Your task to perform on an android device: open app "DuckDuckGo Privacy Browser" Image 0: 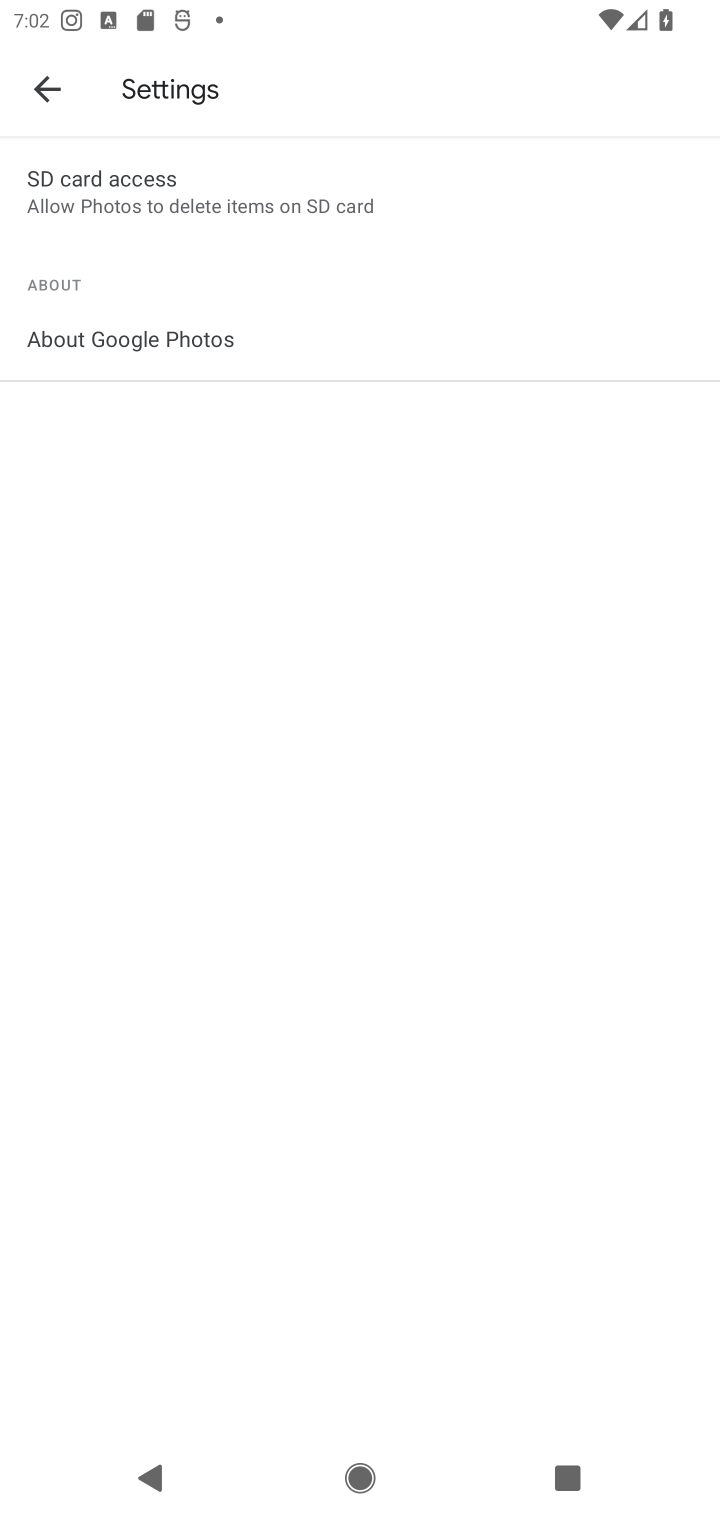
Step 0: press home button
Your task to perform on an android device: open app "DuckDuckGo Privacy Browser" Image 1: 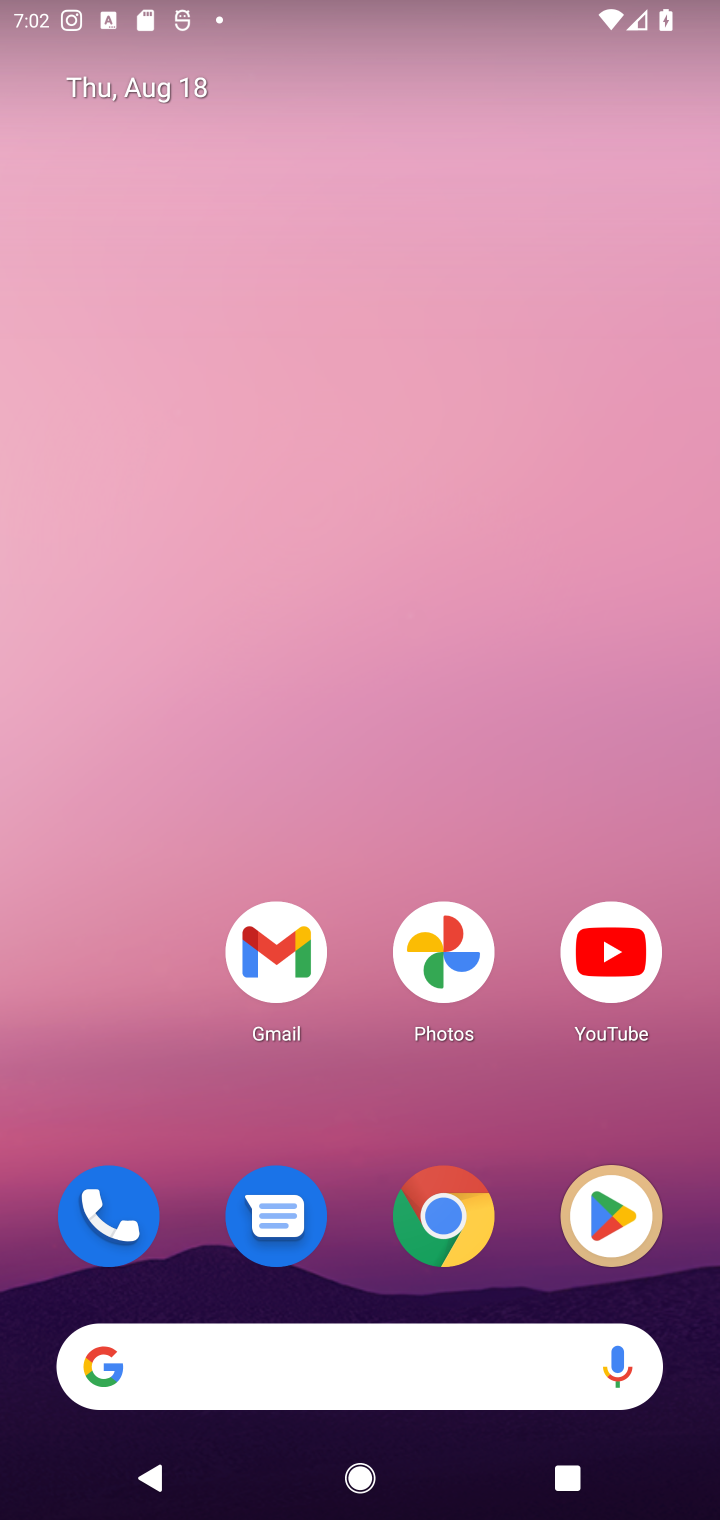
Step 1: click (593, 1206)
Your task to perform on an android device: open app "DuckDuckGo Privacy Browser" Image 2: 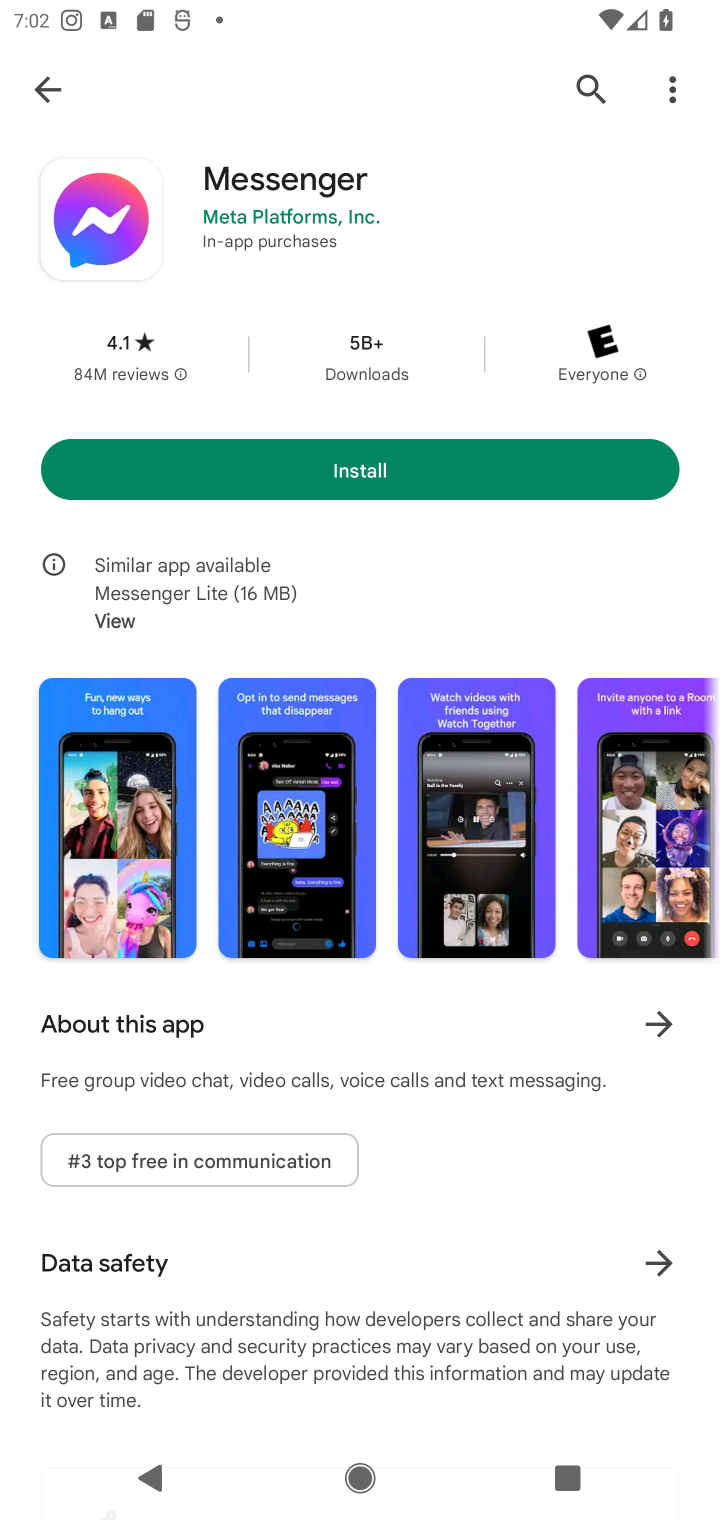
Step 2: click (591, 91)
Your task to perform on an android device: open app "DuckDuckGo Privacy Browser" Image 3: 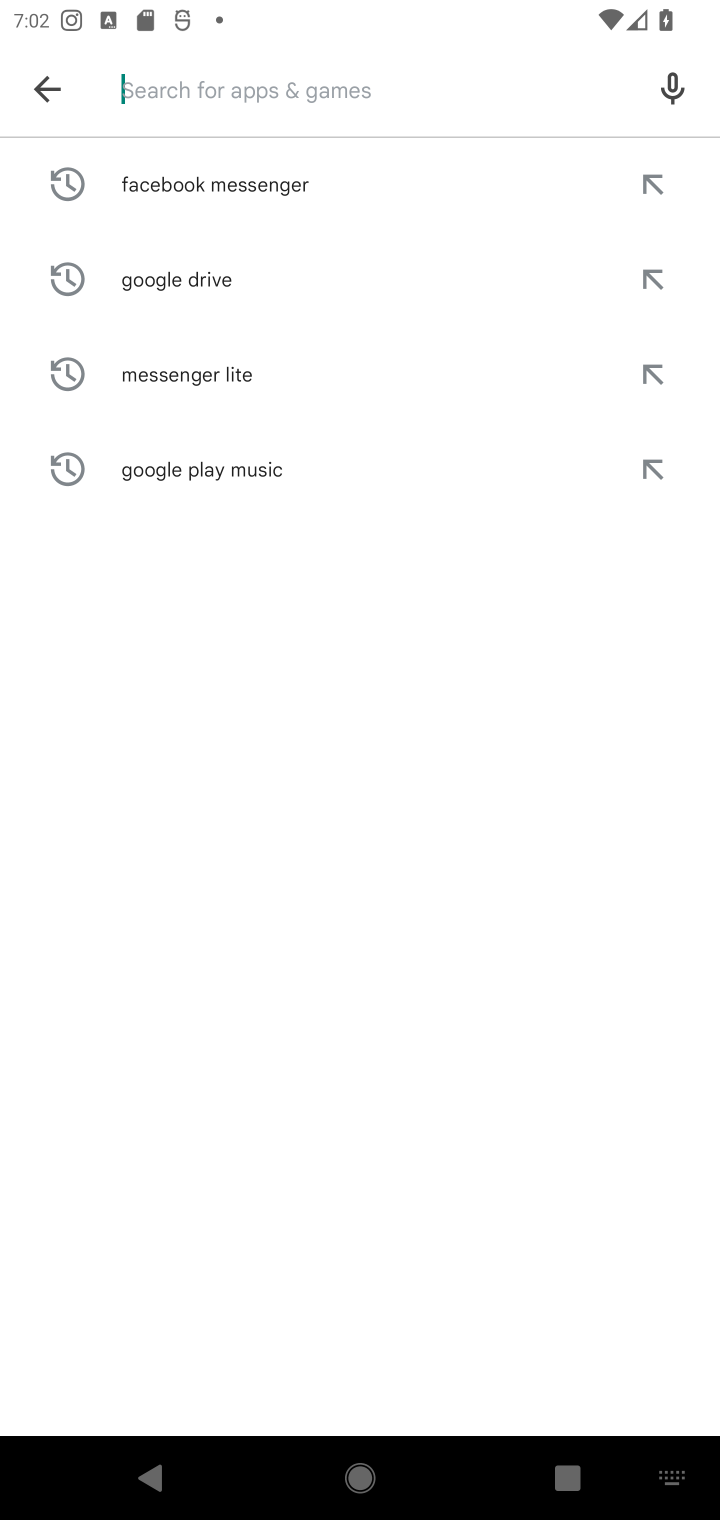
Step 3: type "DuckDuckGo Privacy Browser"
Your task to perform on an android device: open app "DuckDuckGo Privacy Browser" Image 4: 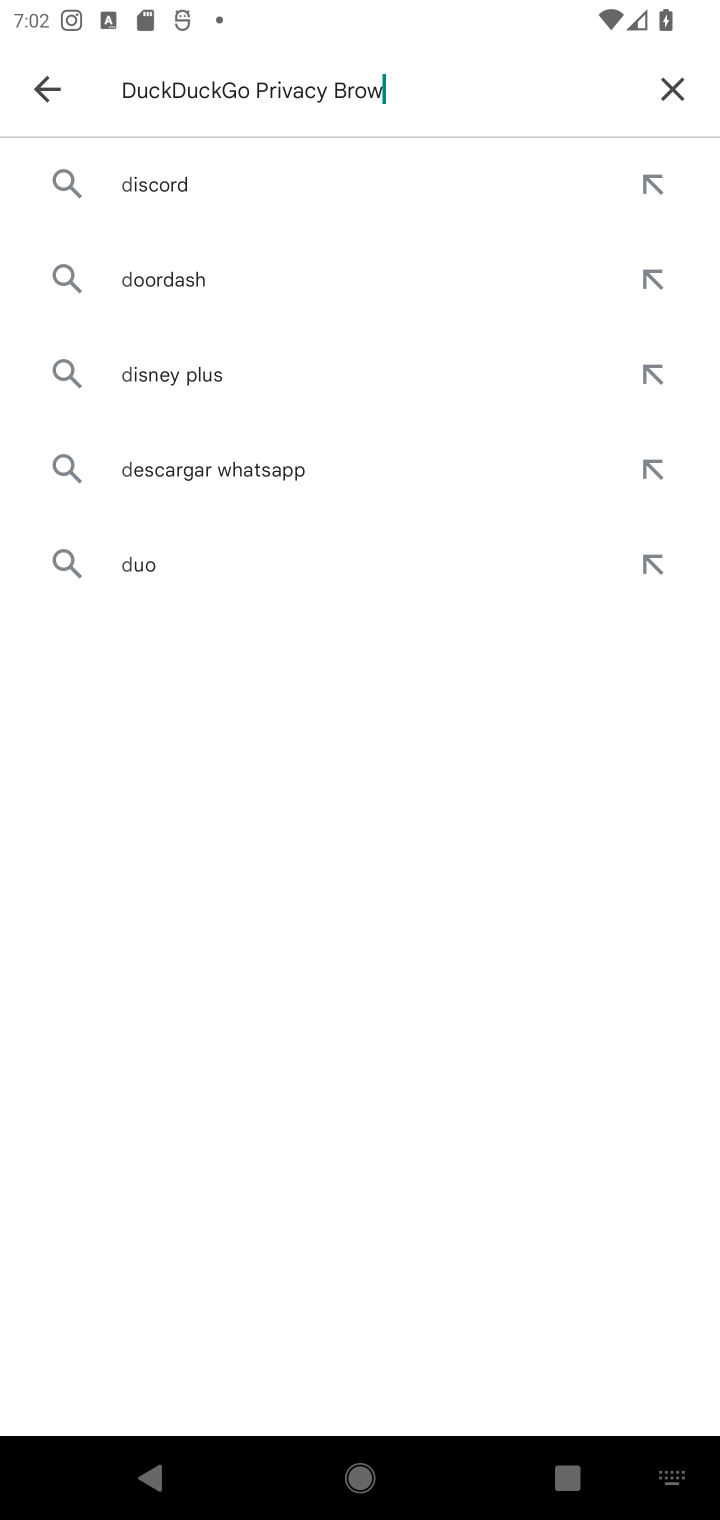
Step 4: type ""
Your task to perform on an android device: open app "DuckDuckGo Privacy Browser" Image 5: 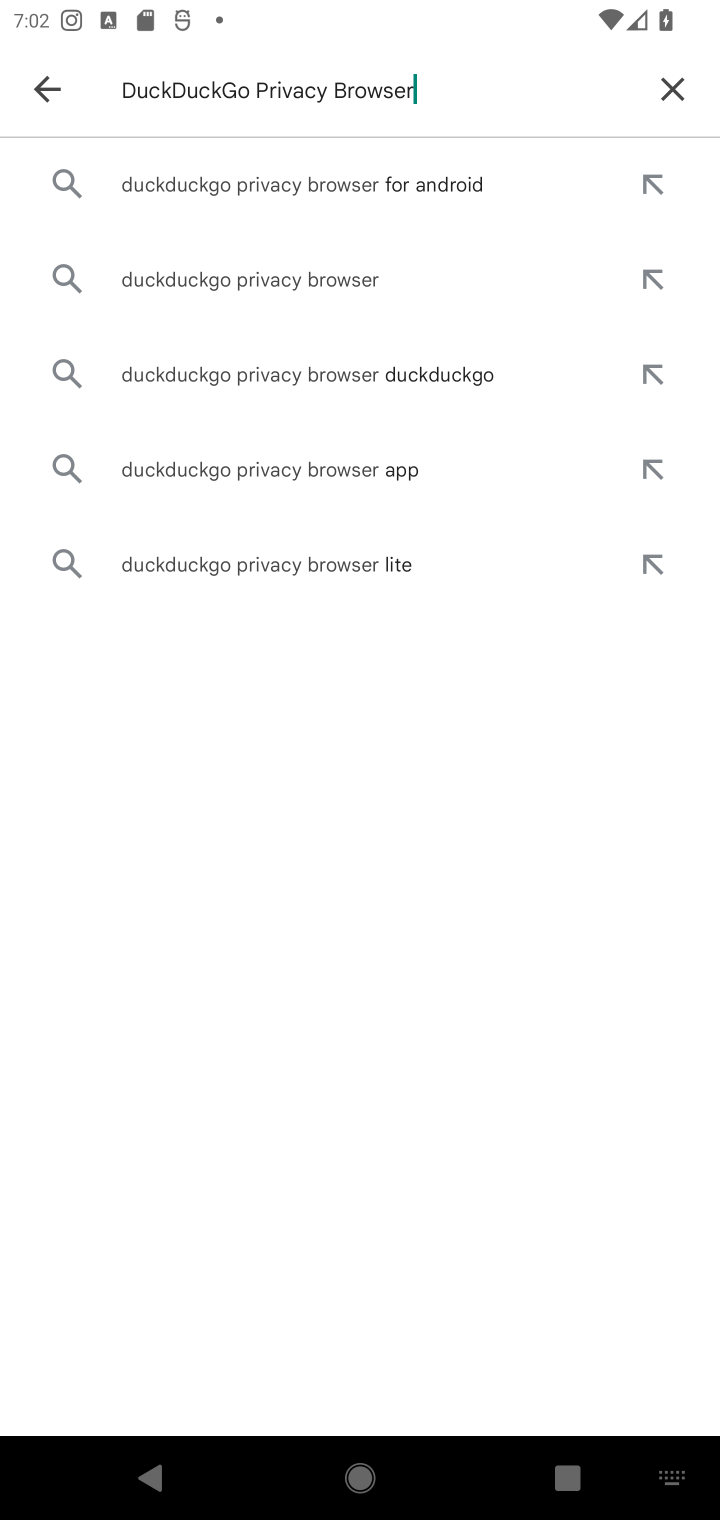
Step 5: click (245, 195)
Your task to perform on an android device: open app "DuckDuckGo Privacy Browser" Image 6: 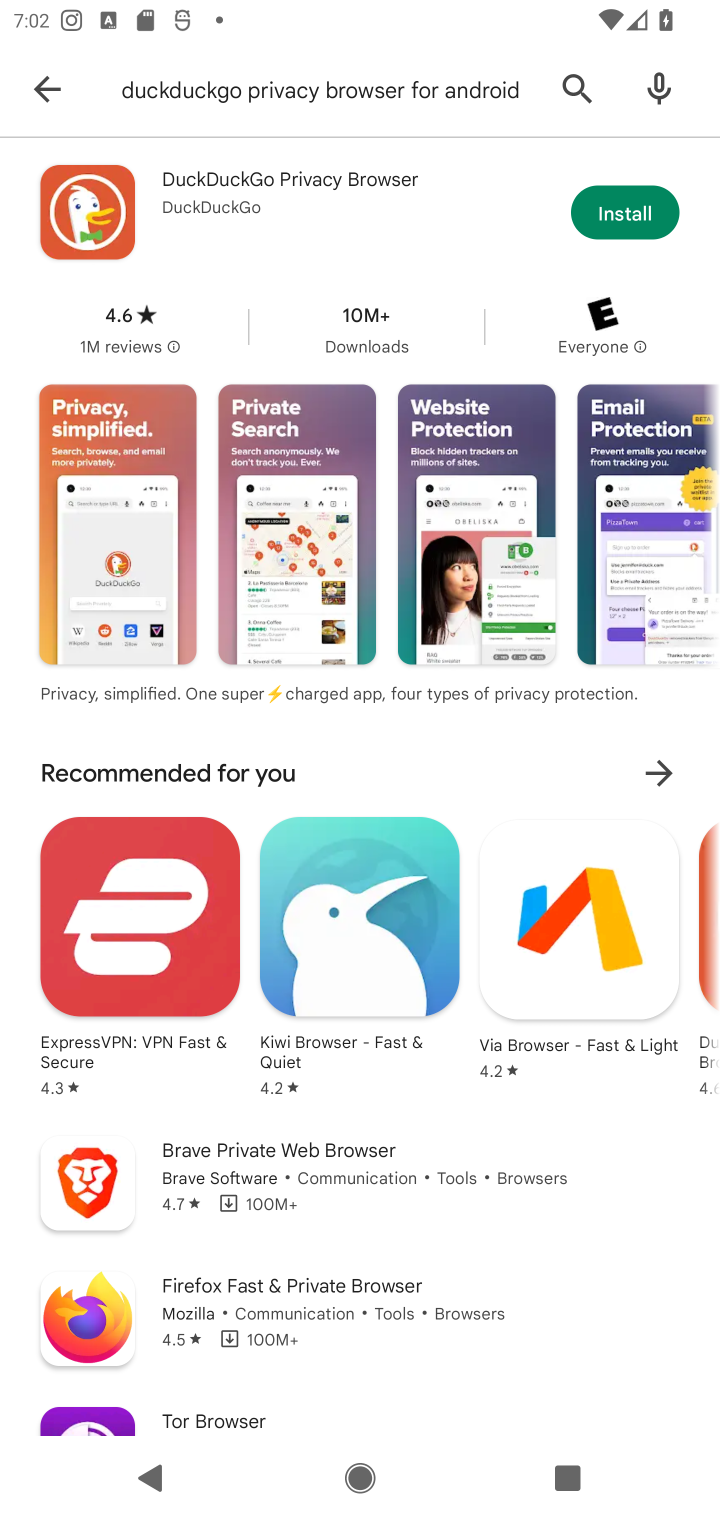
Step 6: click (374, 205)
Your task to perform on an android device: open app "DuckDuckGo Privacy Browser" Image 7: 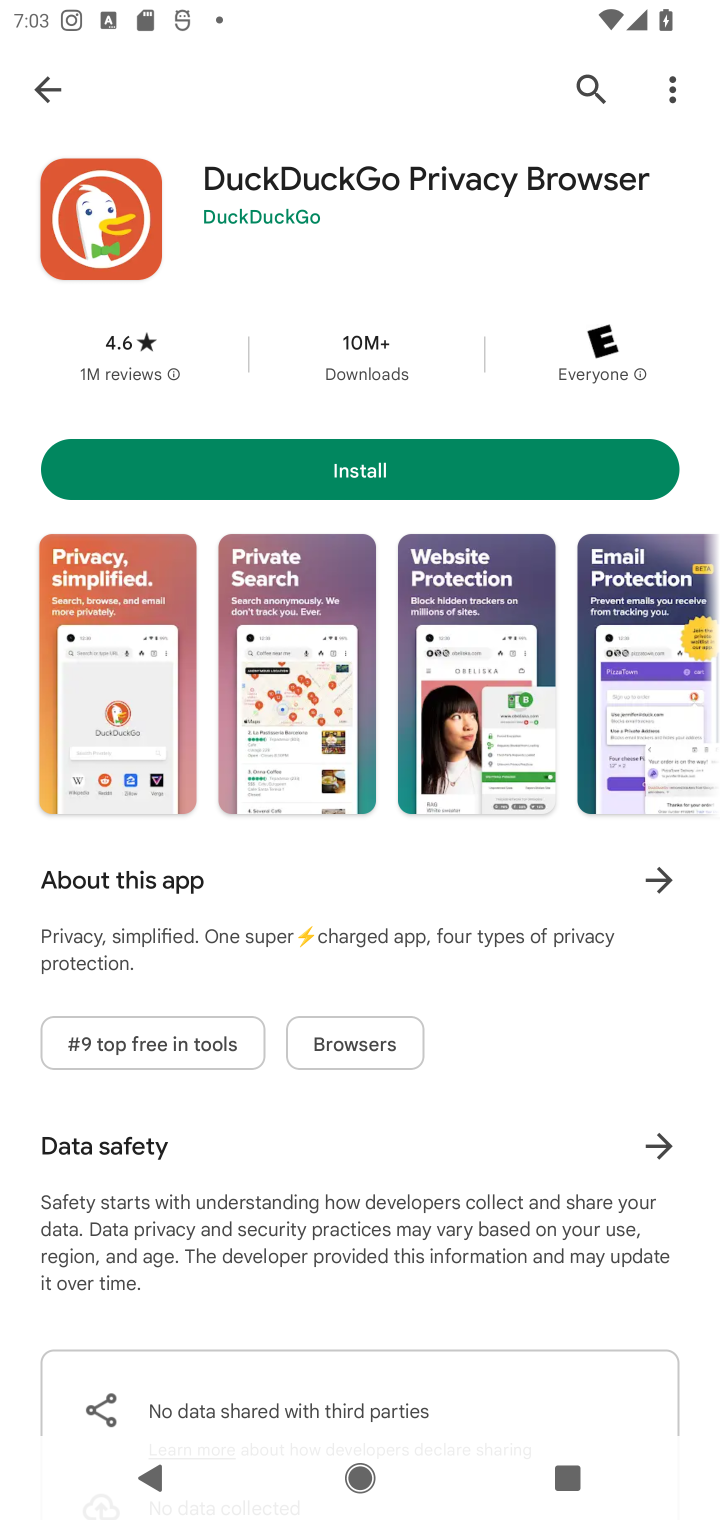
Step 7: task complete